Your task to perform on an android device: find snoozed emails in the gmail app Image 0: 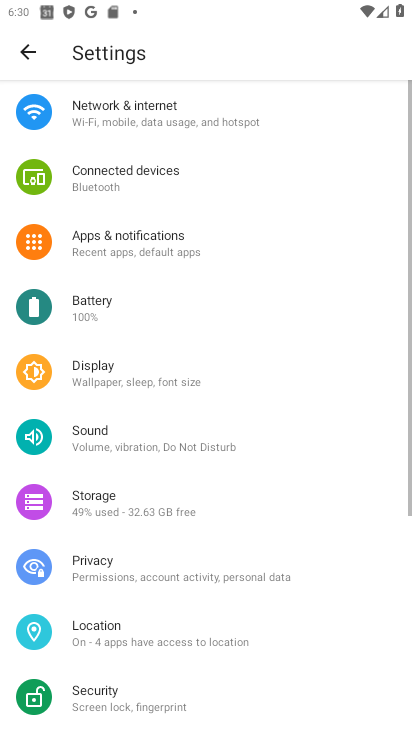
Step 0: press home button
Your task to perform on an android device: find snoozed emails in the gmail app Image 1: 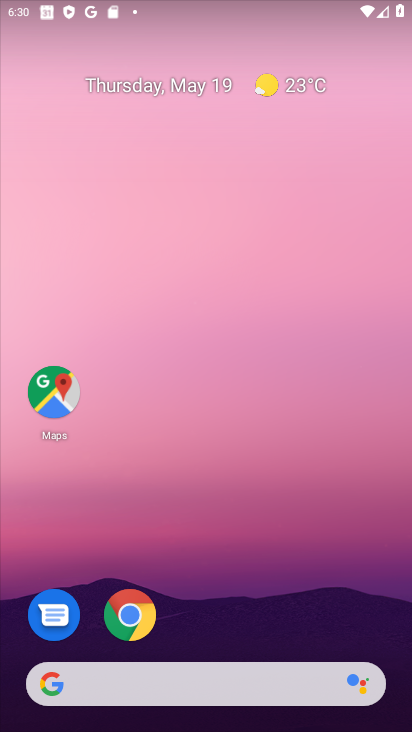
Step 1: drag from (357, 657) to (355, 27)
Your task to perform on an android device: find snoozed emails in the gmail app Image 2: 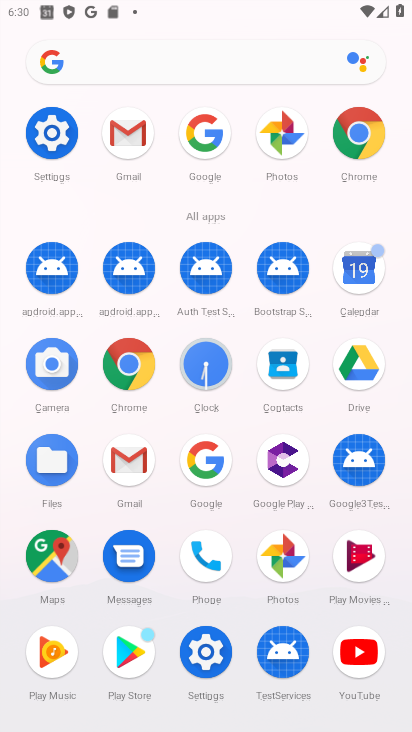
Step 2: click (120, 469)
Your task to perform on an android device: find snoozed emails in the gmail app Image 3: 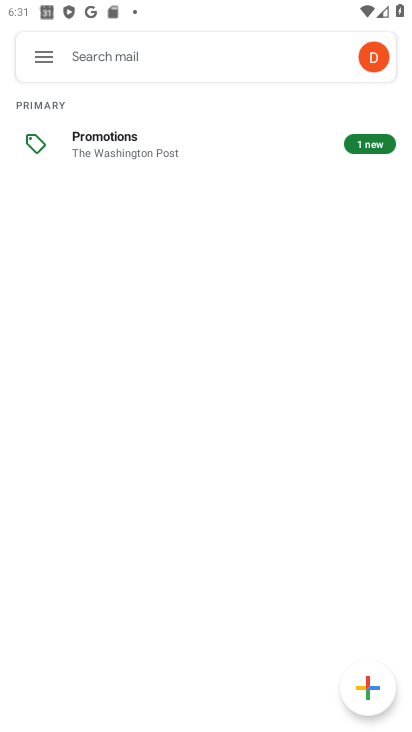
Step 3: click (48, 53)
Your task to perform on an android device: find snoozed emails in the gmail app Image 4: 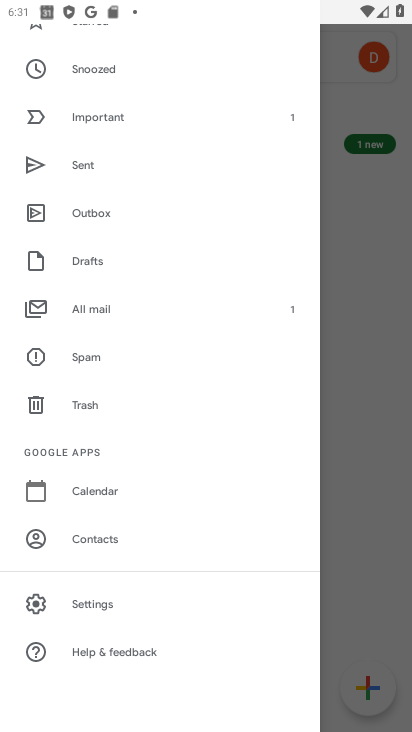
Step 4: click (150, 69)
Your task to perform on an android device: find snoozed emails in the gmail app Image 5: 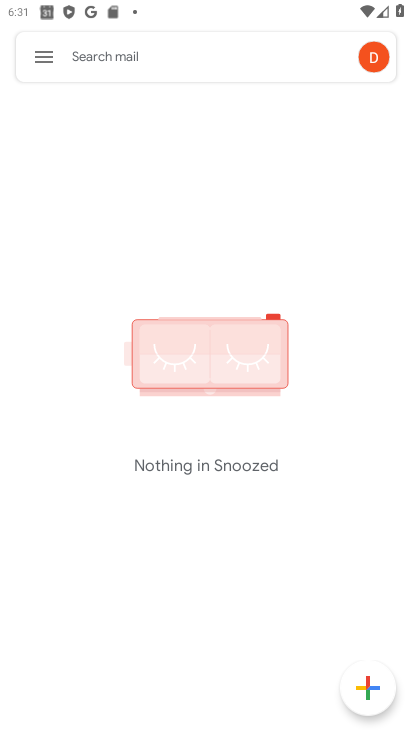
Step 5: task complete